Your task to perform on an android device: Clear all items from cart on bestbuy.com. Search for bose soundsport free on bestbuy.com, select the first entry, and add it to the cart. Image 0: 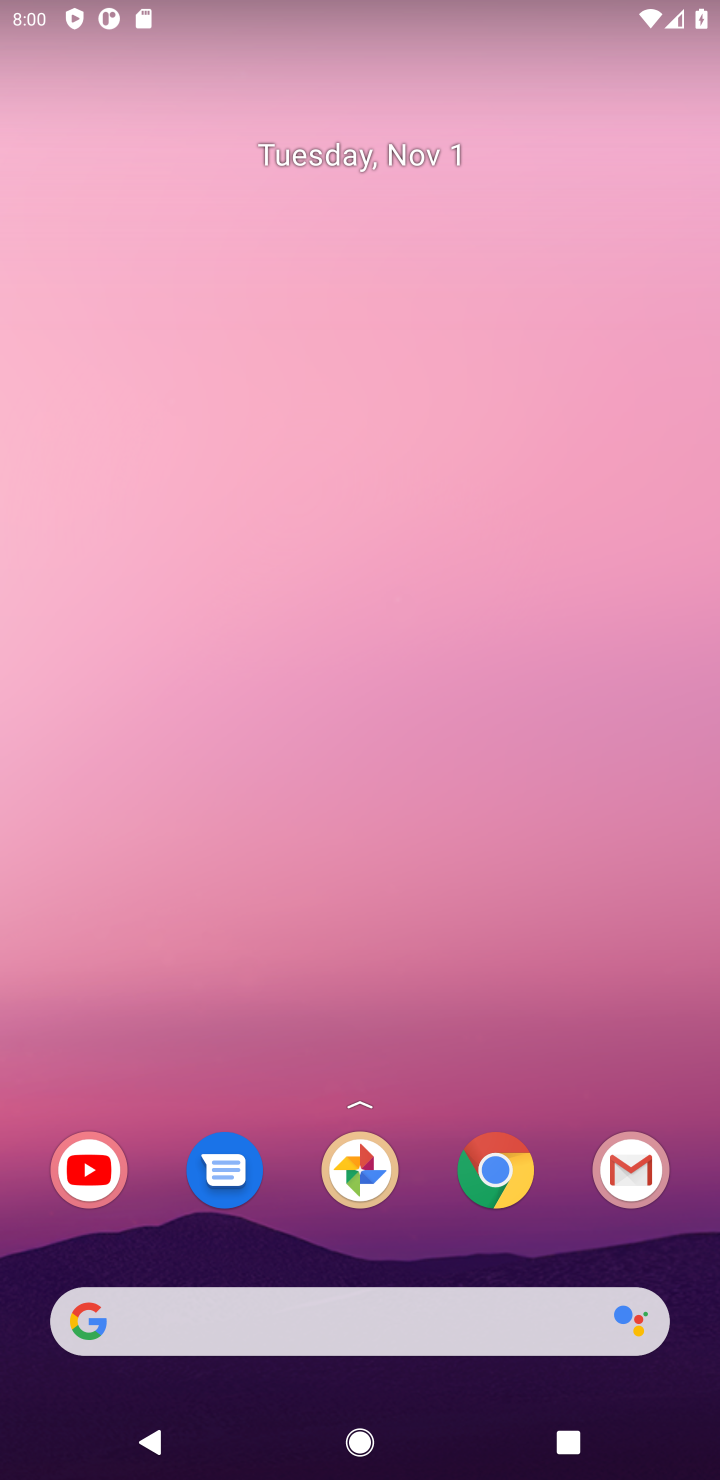
Step 0: click (507, 1173)
Your task to perform on an android device: Clear all items from cart on bestbuy.com. Search for bose soundsport free on bestbuy.com, select the first entry, and add it to the cart. Image 1: 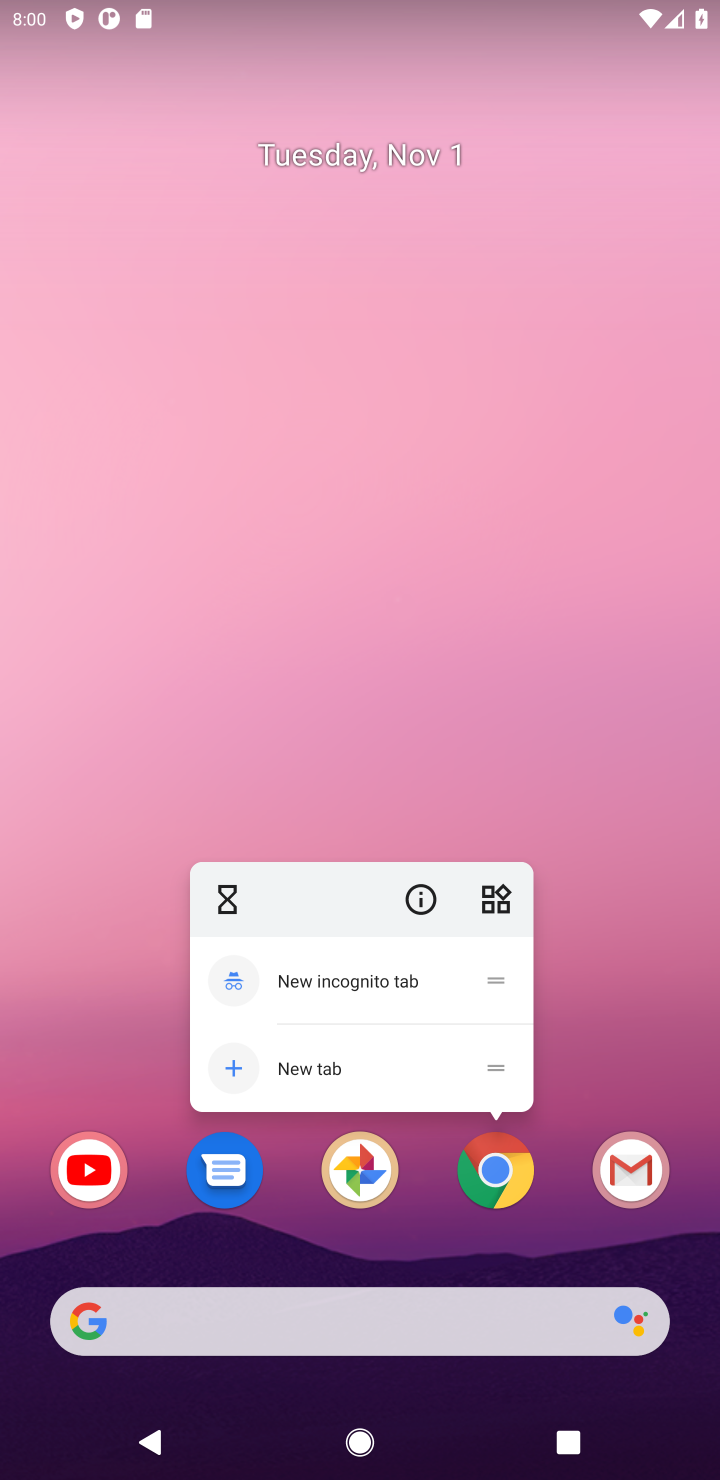
Step 1: click (523, 1187)
Your task to perform on an android device: Clear all items from cart on bestbuy.com. Search for bose soundsport free on bestbuy.com, select the first entry, and add it to the cart. Image 2: 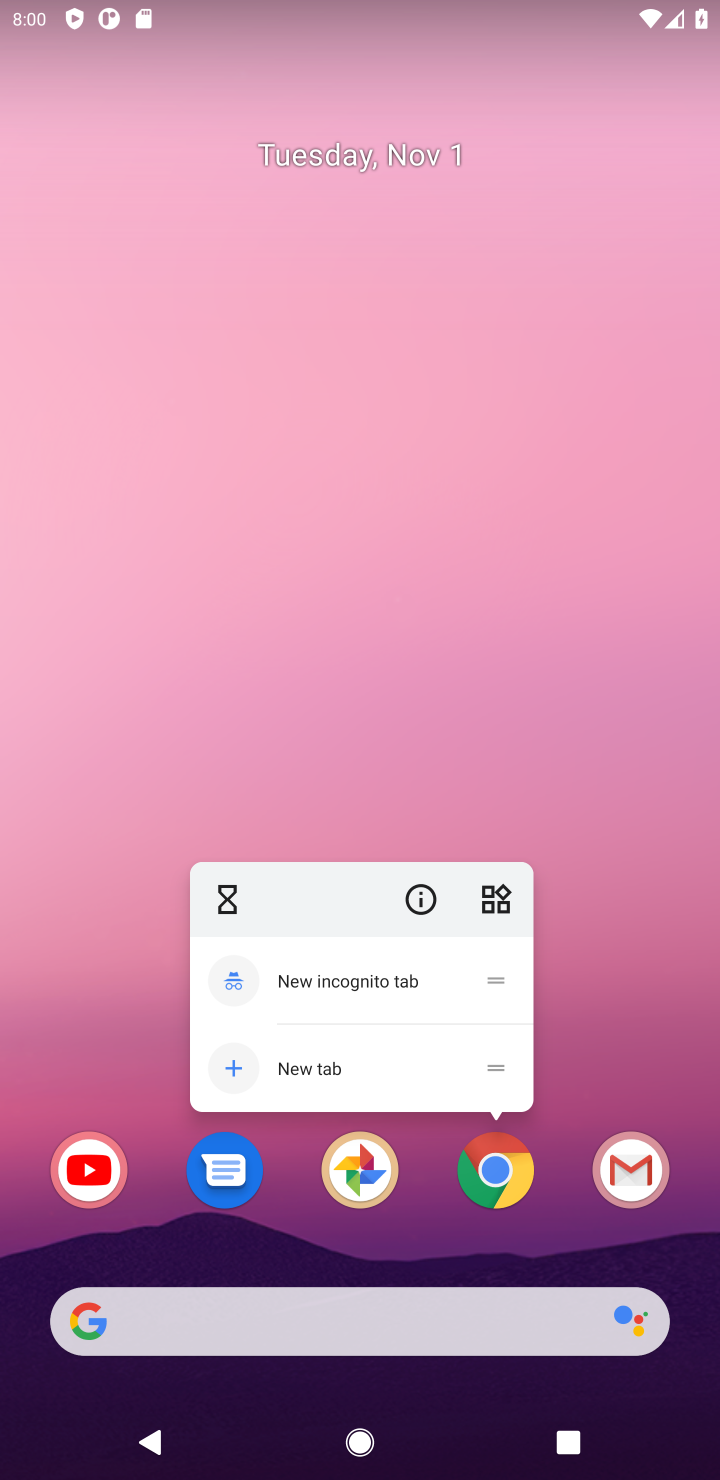
Step 2: click (499, 1171)
Your task to perform on an android device: Clear all items from cart on bestbuy.com. Search for bose soundsport free on bestbuy.com, select the first entry, and add it to the cart. Image 3: 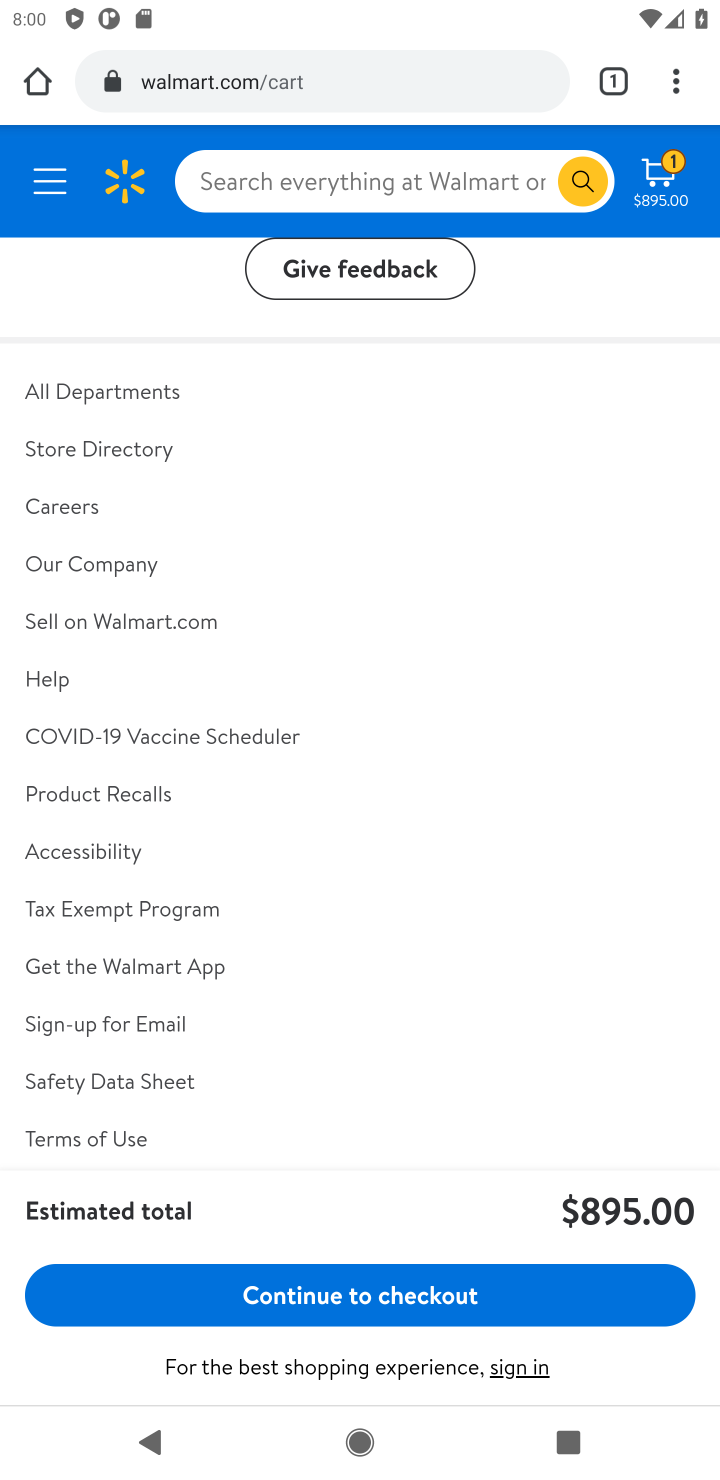
Step 3: click (336, 72)
Your task to perform on an android device: Clear all items from cart on bestbuy.com. Search for bose soundsport free on bestbuy.com, select the first entry, and add it to the cart. Image 4: 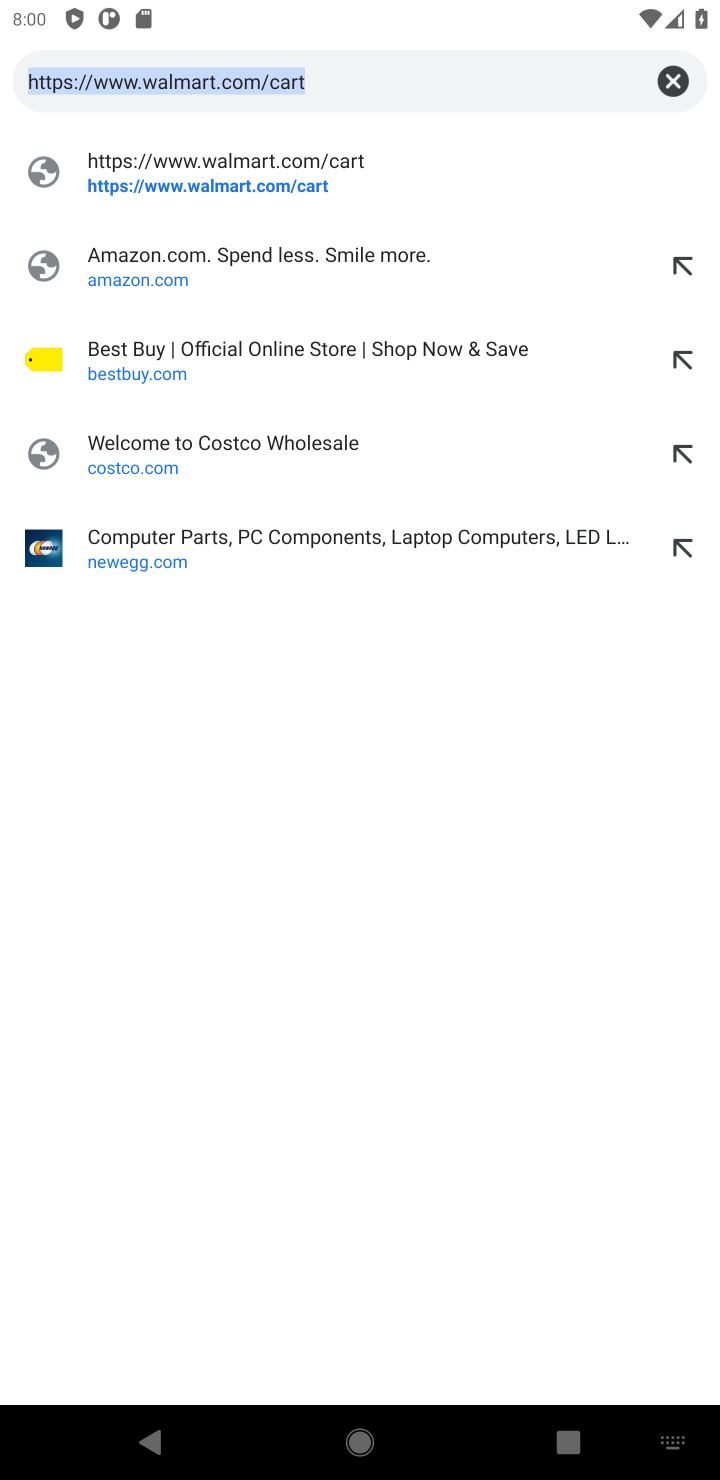
Step 4: type "bestbuy.com"
Your task to perform on an android device: Clear all items from cart on bestbuy.com. Search for bose soundsport free on bestbuy.com, select the first entry, and add it to the cart. Image 5: 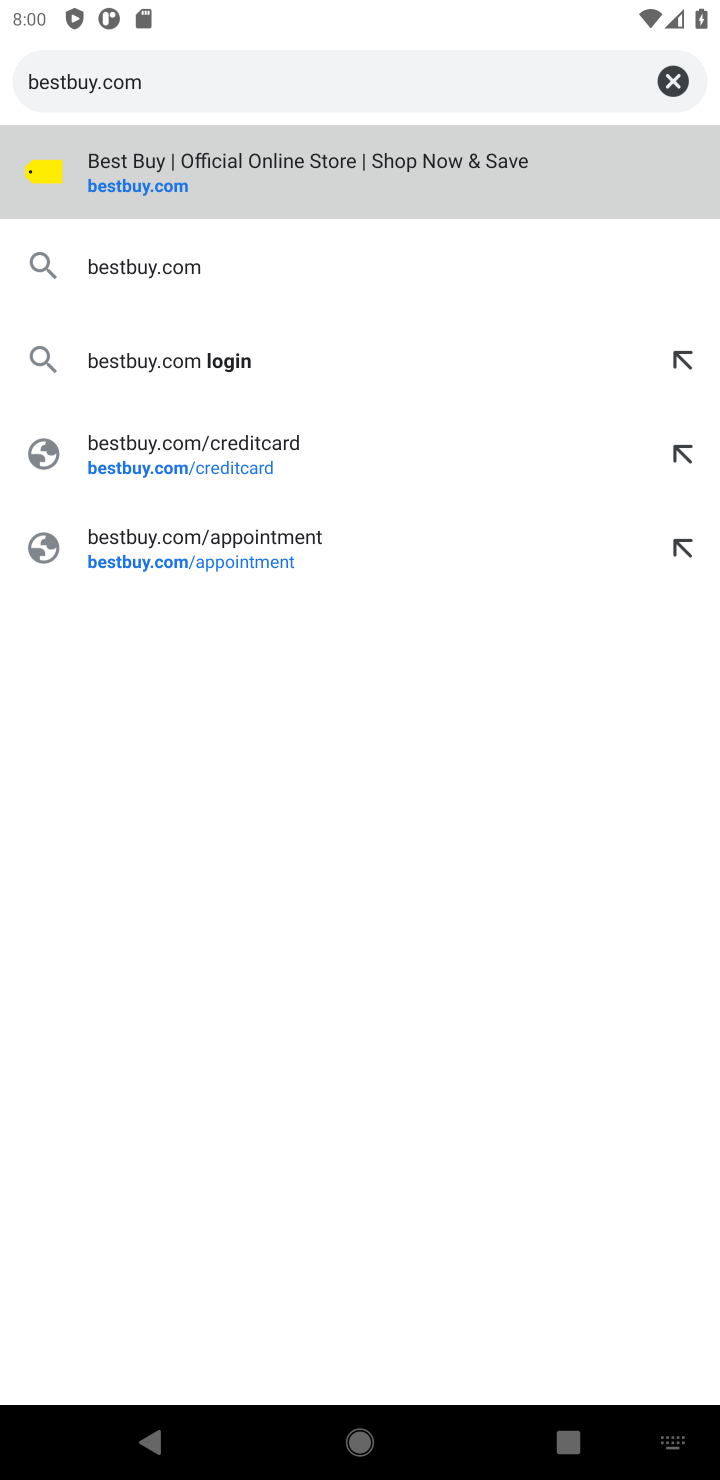
Step 5: type ""
Your task to perform on an android device: Clear all items from cart on bestbuy.com. Search for bose soundsport free on bestbuy.com, select the first entry, and add it to the cart. Image 6: 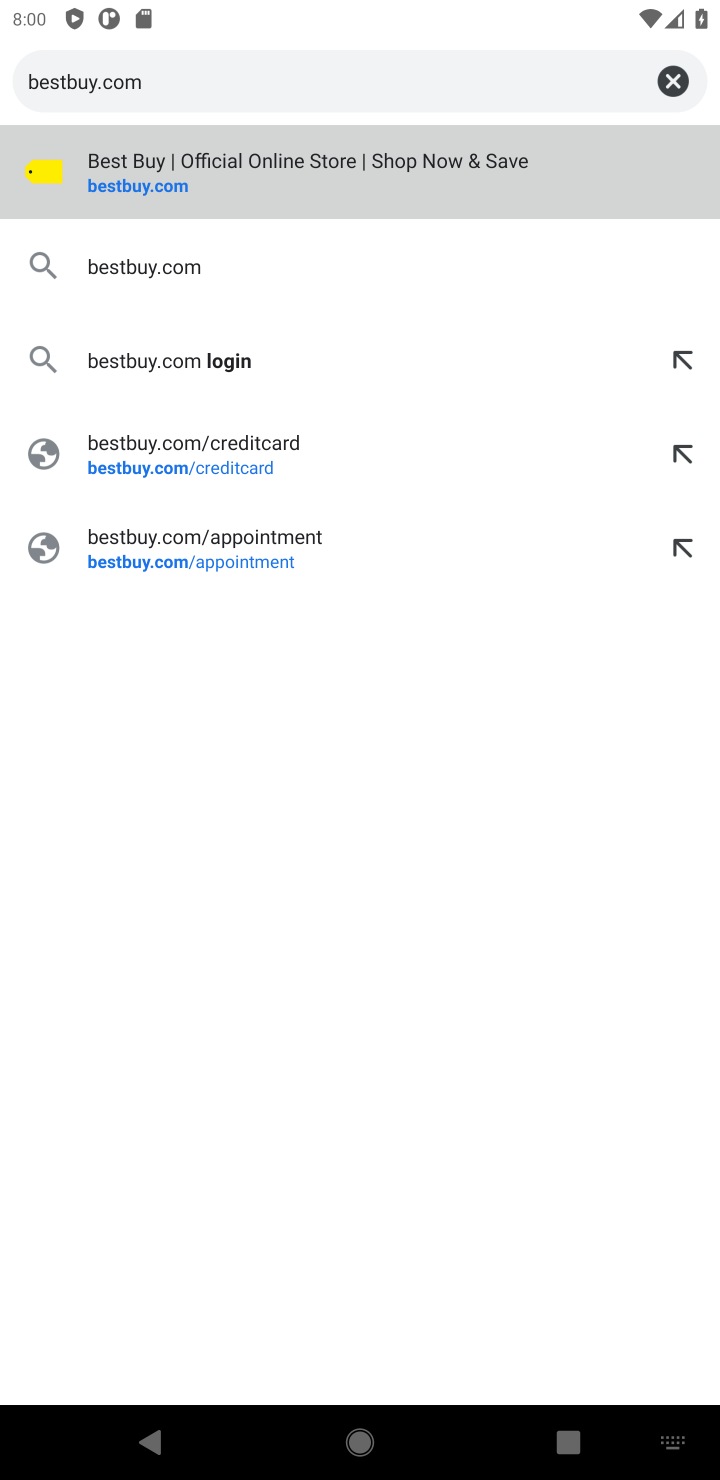
Step 6: press enter
Your task to perform on an android device: Clear all items from cart on bestbuy.com. Search for bose soundsport free on bestbuy.com, select the first entry, and add it to the cart. Image 7: 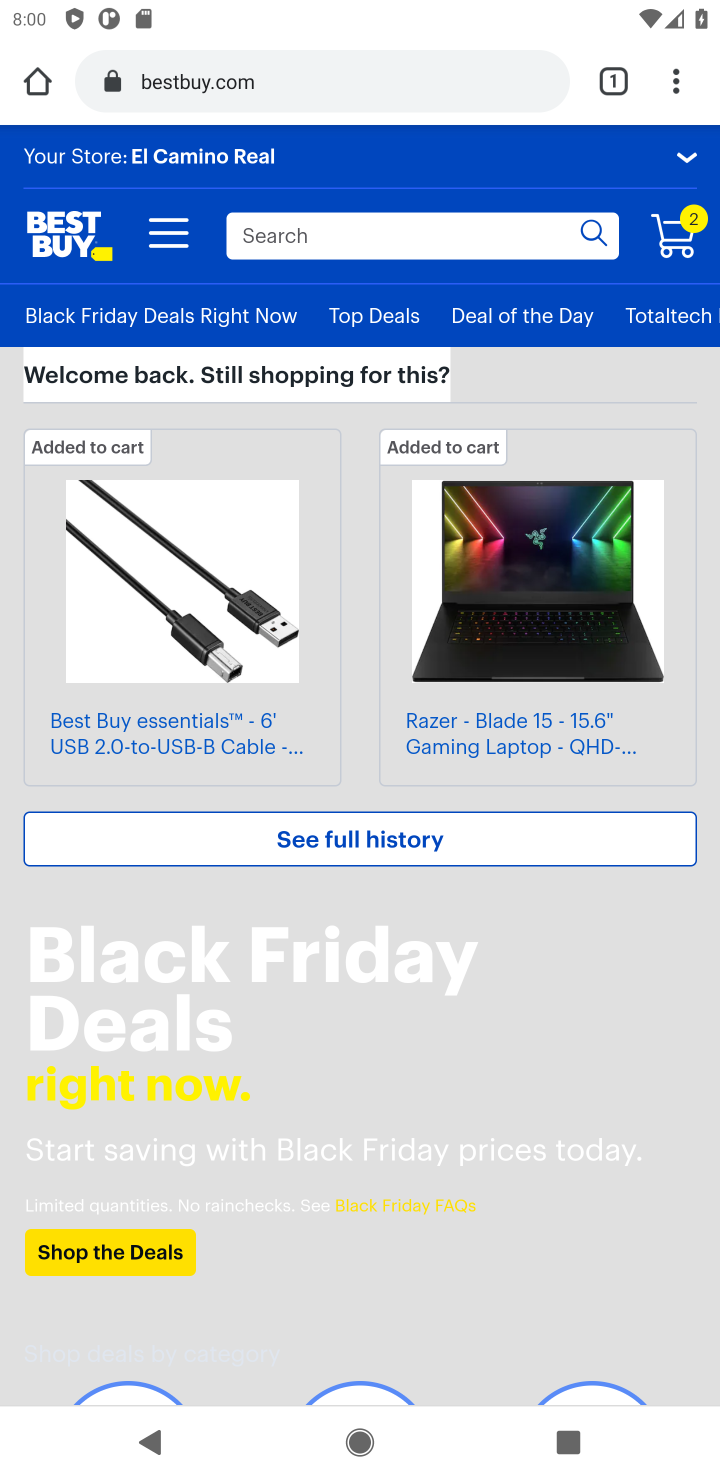
Step 7: click (693, 231)
Your task to perform on an android device: Clear all items from cart on bestbuy.com. Search for bose soundsport free on bestbuy.com, select the first entry, and add it to the cart. Image 8: 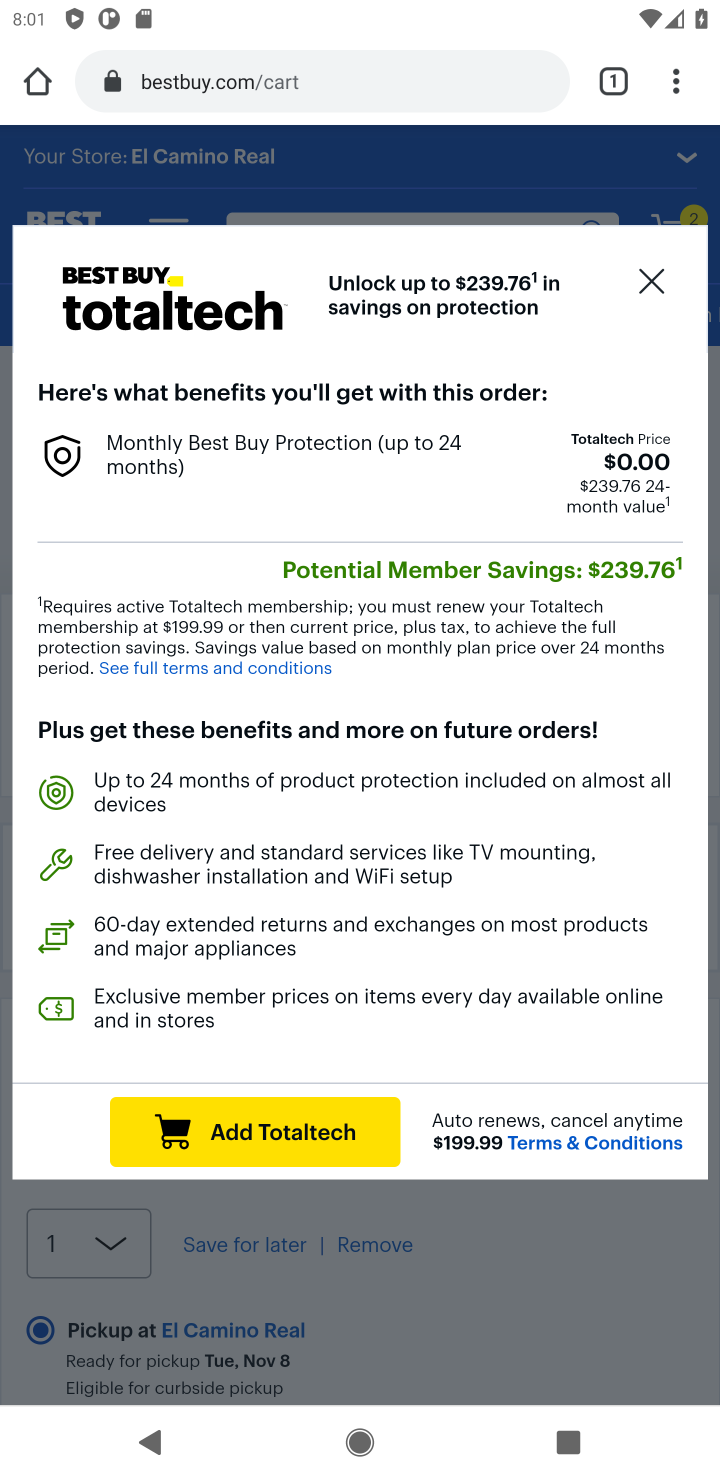
Step 8: click (656, 287)
Your task to perform on an android device: Clear all items from cart on bestbuy.com. Search for bose soundsport free on bestbuy.com, select the first entry, and add it to the cart. Image 9: 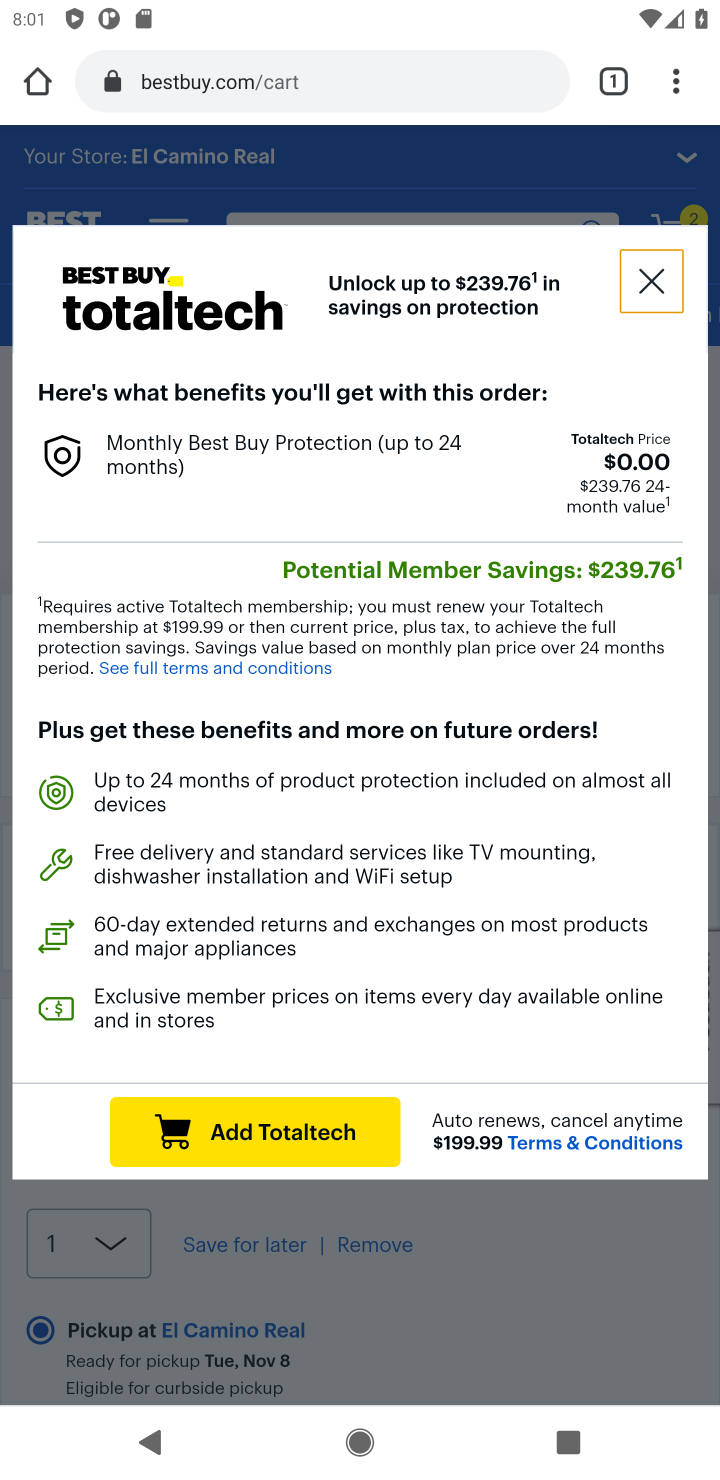
Step 9: click (658, 288)
Your task to perform on an android device: Clear all items from cart on bestbuy.com. Search for bose soundsport free on bestbuy.com, select the first entry, and add it to the cart. Image 10: 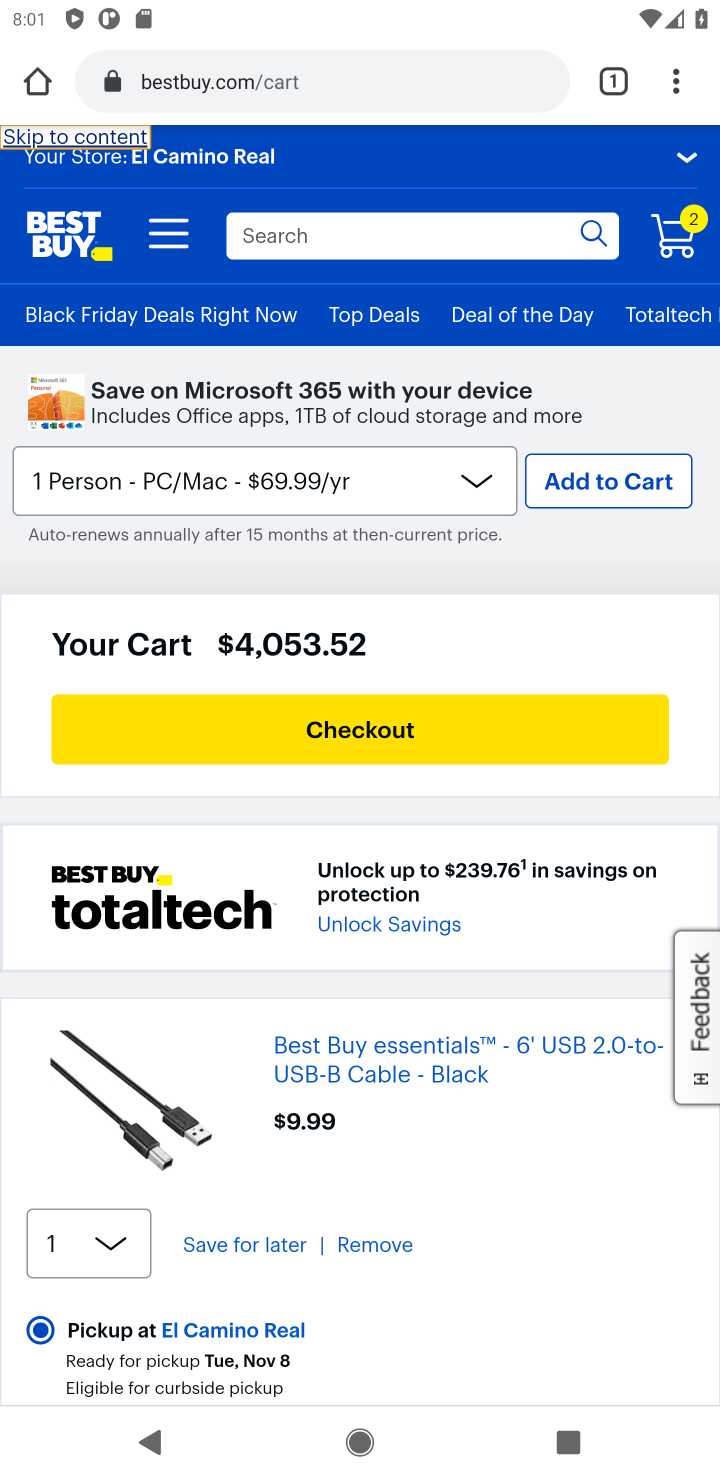
Step 10: task complete